Your task to perform on an android device: Open a new incognito window in the chrome app Image 0: 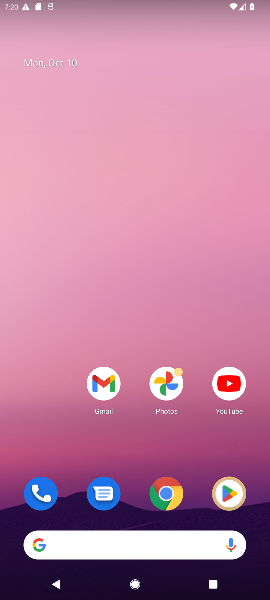
Step 0: click (164, 490)
Your task to perform on an android device: Open a new incognito window in the chrome app Image 1: 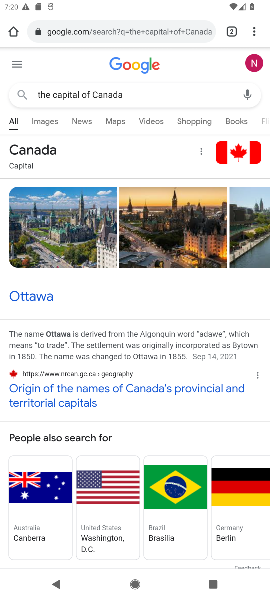
Step 1: click (257, 33)
Your task to perform on an android device: Open a new incognito window in the chrome app Image 2: 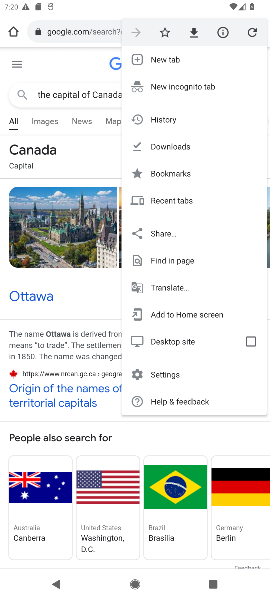
Step 2: click (173, 83)
Your task to perform on an android device: Open a new incognito window in the chrome app Image 3: 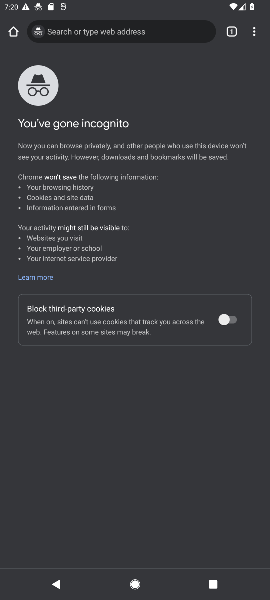
Step 3: task complete